Your task to perform on an android device: toggle data saver in the chrome app Image 0: 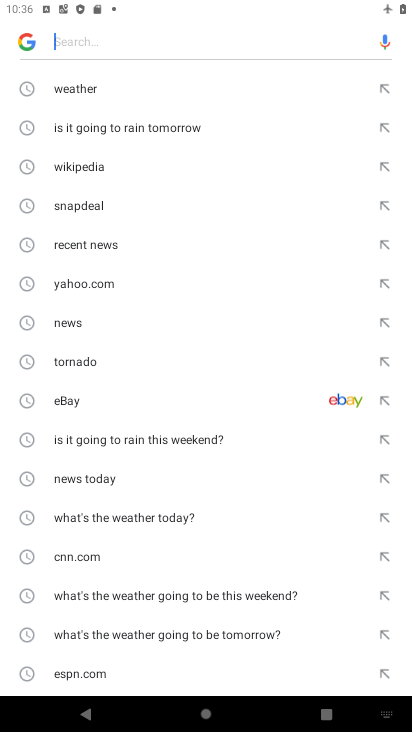
Step 0: press home button
Your task to perform on an android device: toggle data saver in the chrome app Image 1: 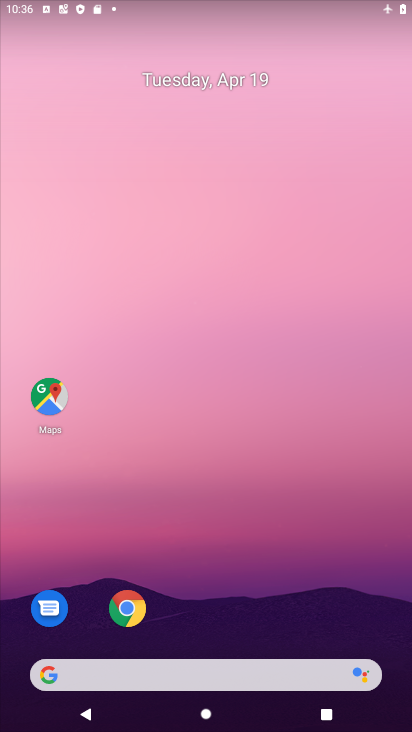
Step 1: click (124, 610)
Your task to perform on an android device: toggle data saver in the chrome app Image 2: 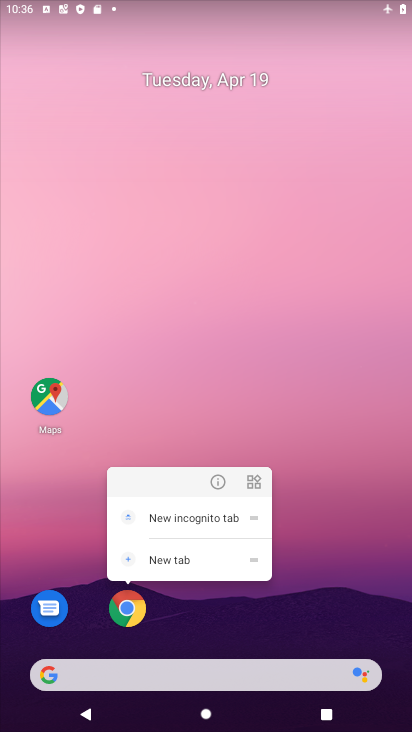
Step 2: click (124, 610)
Your task to perform on an android device: toggle data saver in the chrome app Image 3: 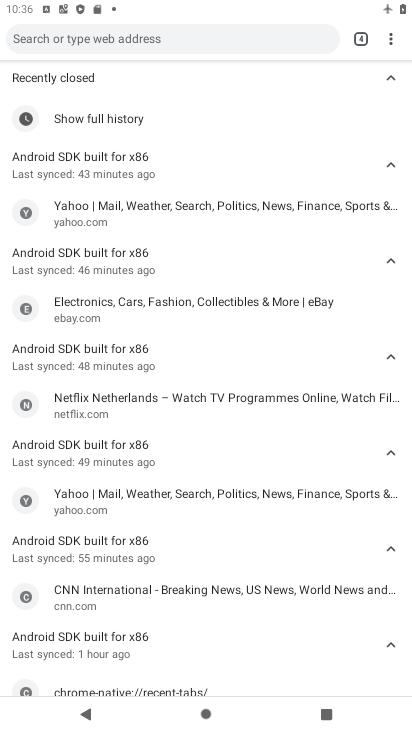
Step 3: click (390, 40)
Your task to perform on an android device: toggle data saver in the chrome app Image 4: 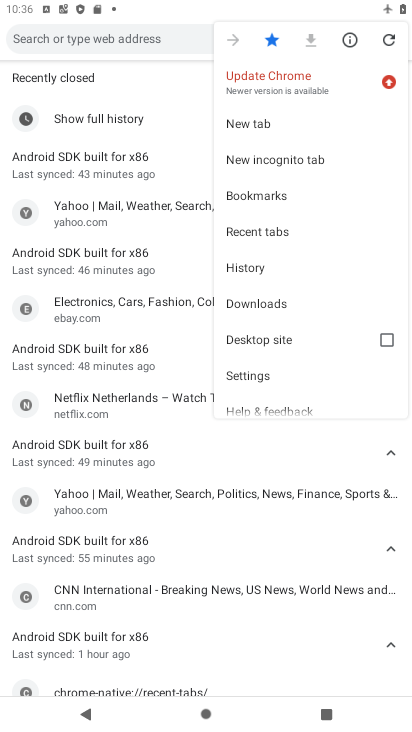
Step 4: drag from (301, 357) to (324, 211)
Your task to perform on an android device: toggle data saver in the chrome app Image 5: 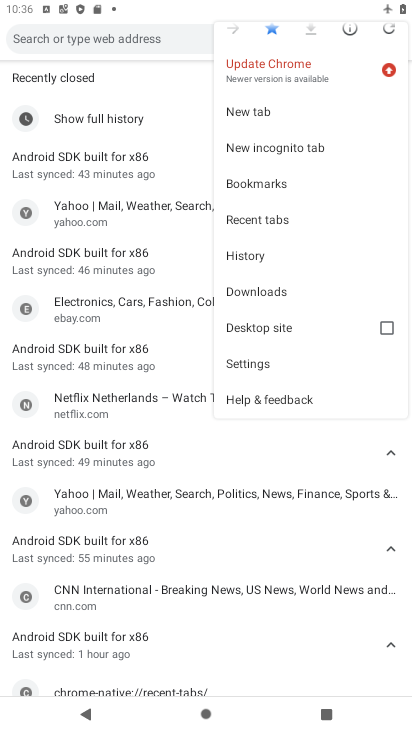
Step 5: click (252, 361)
Your task to perform on an android device: toggle data saver in the chrome app Image 6: 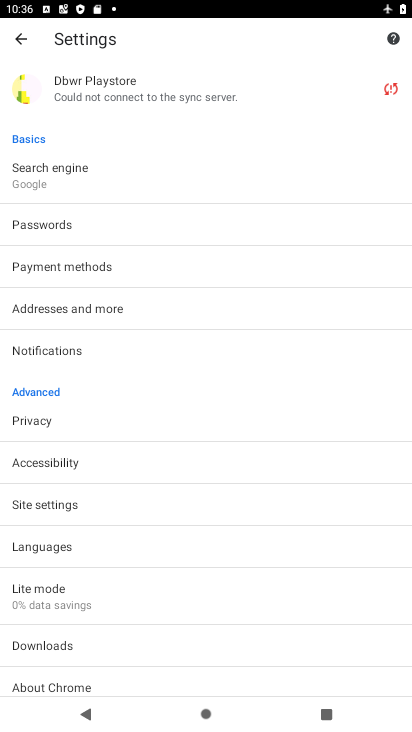
Step 6: click (37, 594)
Your task to perform on an android device: toggle data saver in the chrome app Image 7: 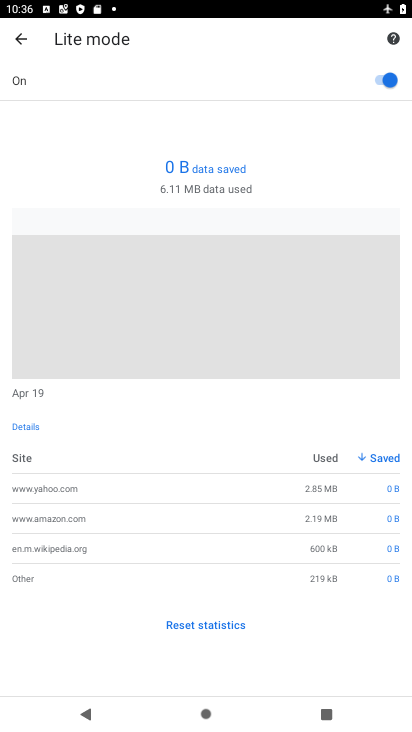
Step 7: click (375, 76)
Your task to perform on an android device: toggle data saver in the chrome app Image 8: 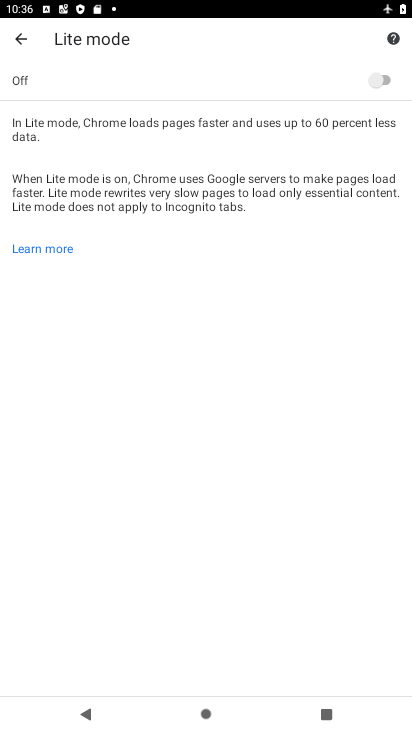
Step 8: task complete